Your task to perform on an android device: toggle javascript in the chrome app Image 0: 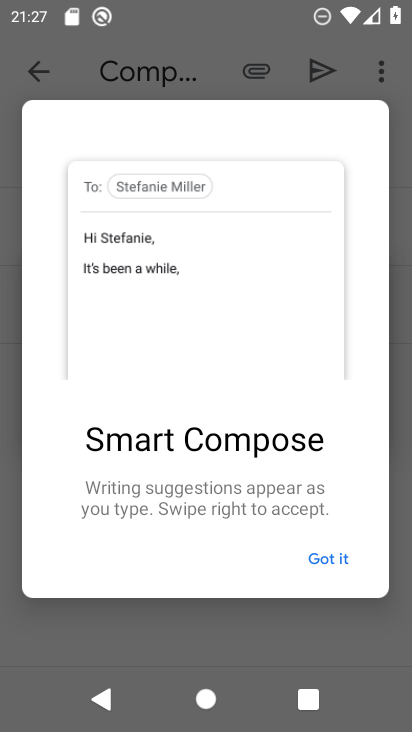
Step 0: press home button
Your task to perform on an android device: toggle javascript in the chrome app Image 1: 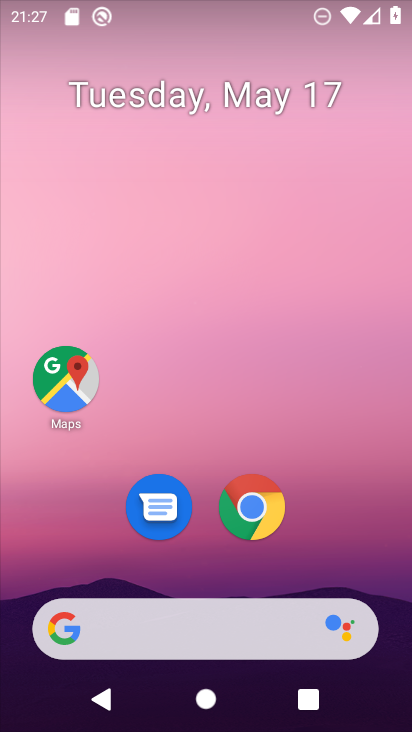
Step 1: click (260, 513)
Your task to perform on an android device: toggle javascript in the chrome app Image 2: 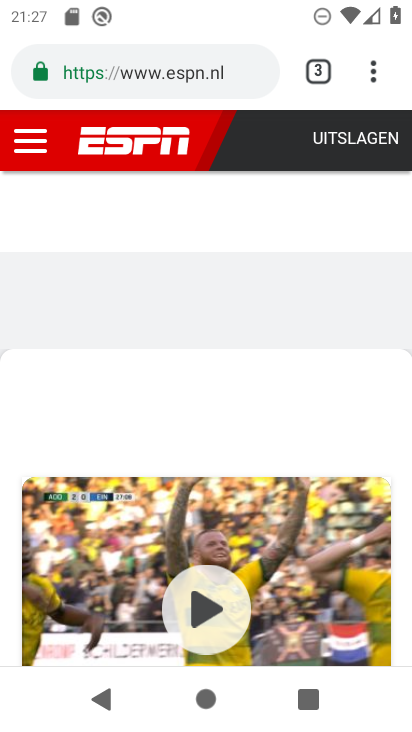
Step 2: click (376, 67)
Your task to perform on an android device: toggle javascript in the chrome app Image 3: 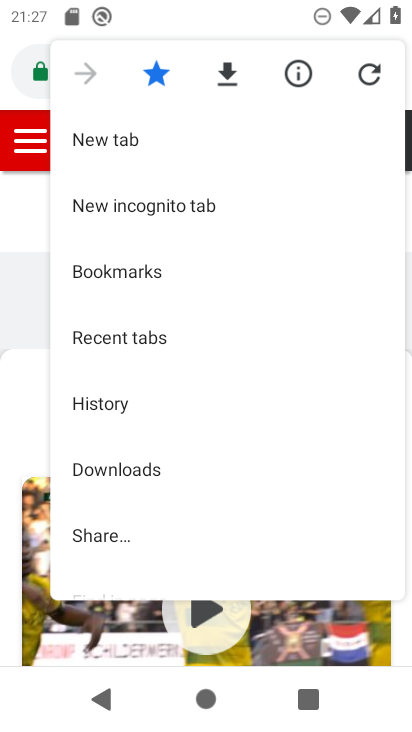
Step 3: drag from (204, 508) to (237, 199)
Your task to perform on an android device: toggle javascript in the chrome app Image 4: 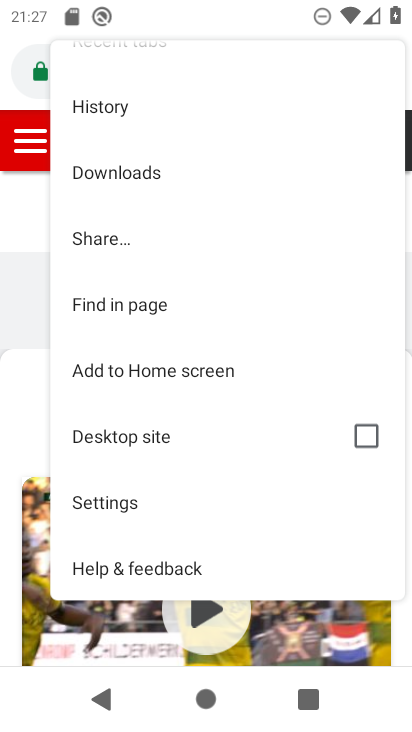
Step 4: click (110, 501)
Your task to perform on an android device: toggle javascript in the chrome app Image 5: 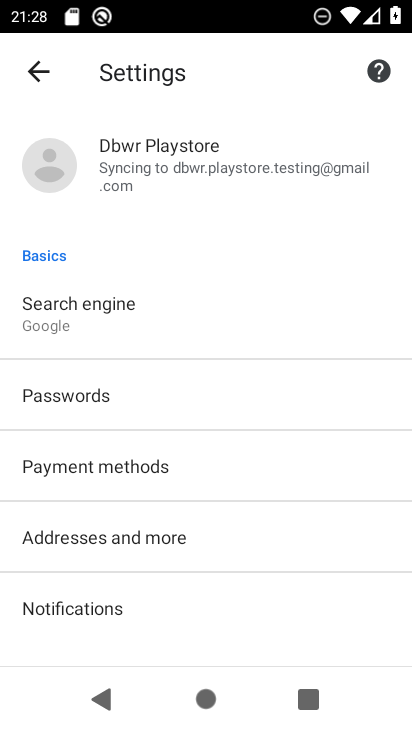
Step 5: drag from (154, 540) to (160, 159)
Your task to perform on an android device: toggle javascript in the chrome app Image 6: 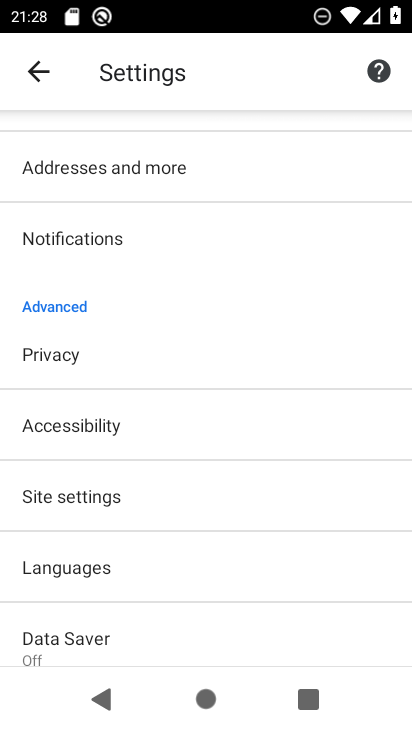
Step 6: click (72, 499)
Your task to perform on an android device: toggle javascript in the chrome app Image 7: 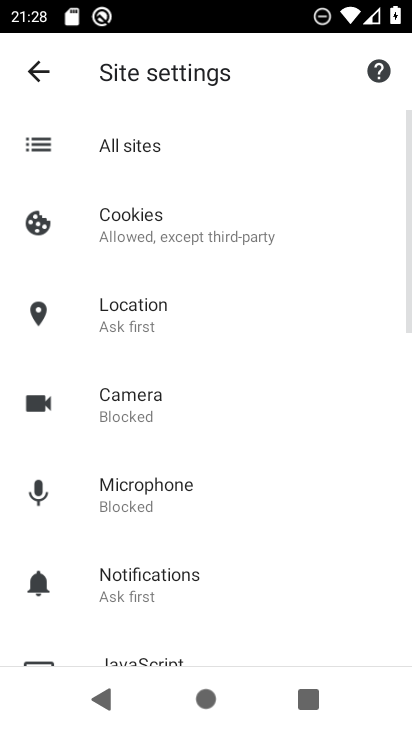
Step 7: drag from (198, 554) to (181, 174)
Your task to perform on an android device: toggle javascript in the chrome app Image 8: 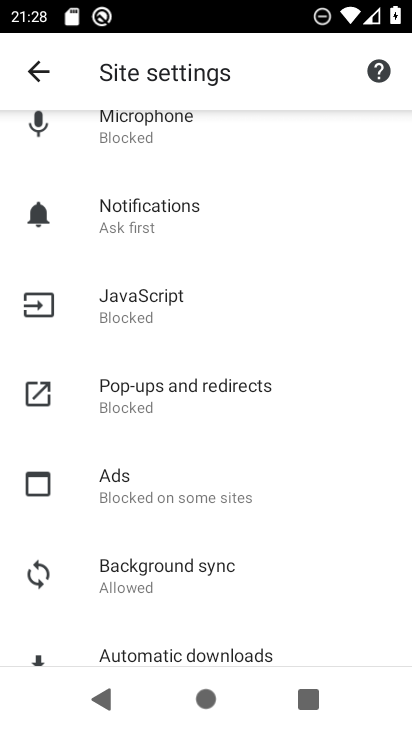
Step 8: click (124, 314)
Your task to perform on an android device: toggle javascript in the chrome app Image 9: 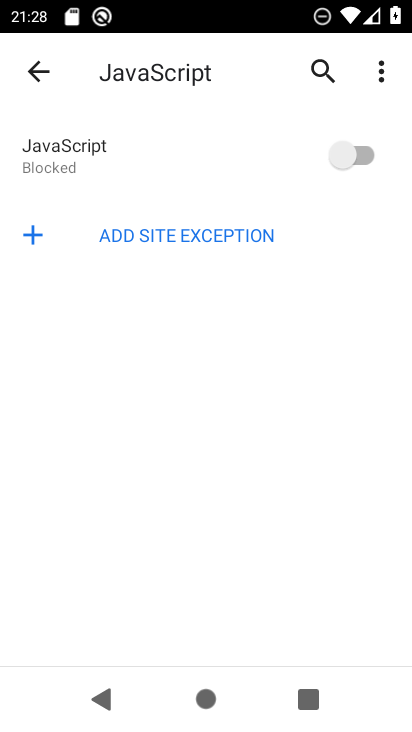
Step 9: click (326, 148)
Your task to perform on an android device: toggle javascript in the chrome app Image 10: 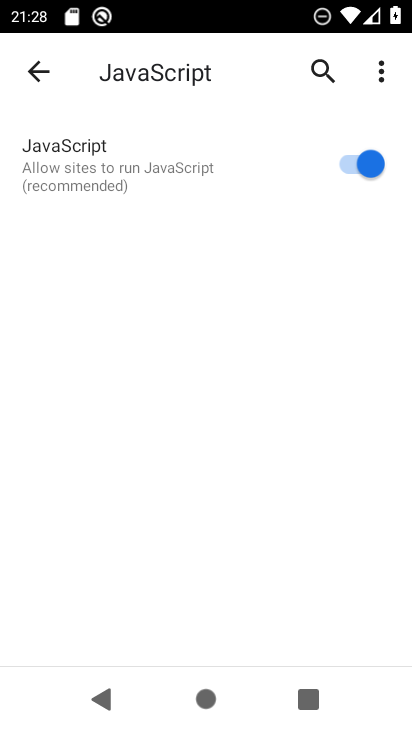
Step 10: task complete